Your task to perform on an android device: all mails in gmail Image 0: 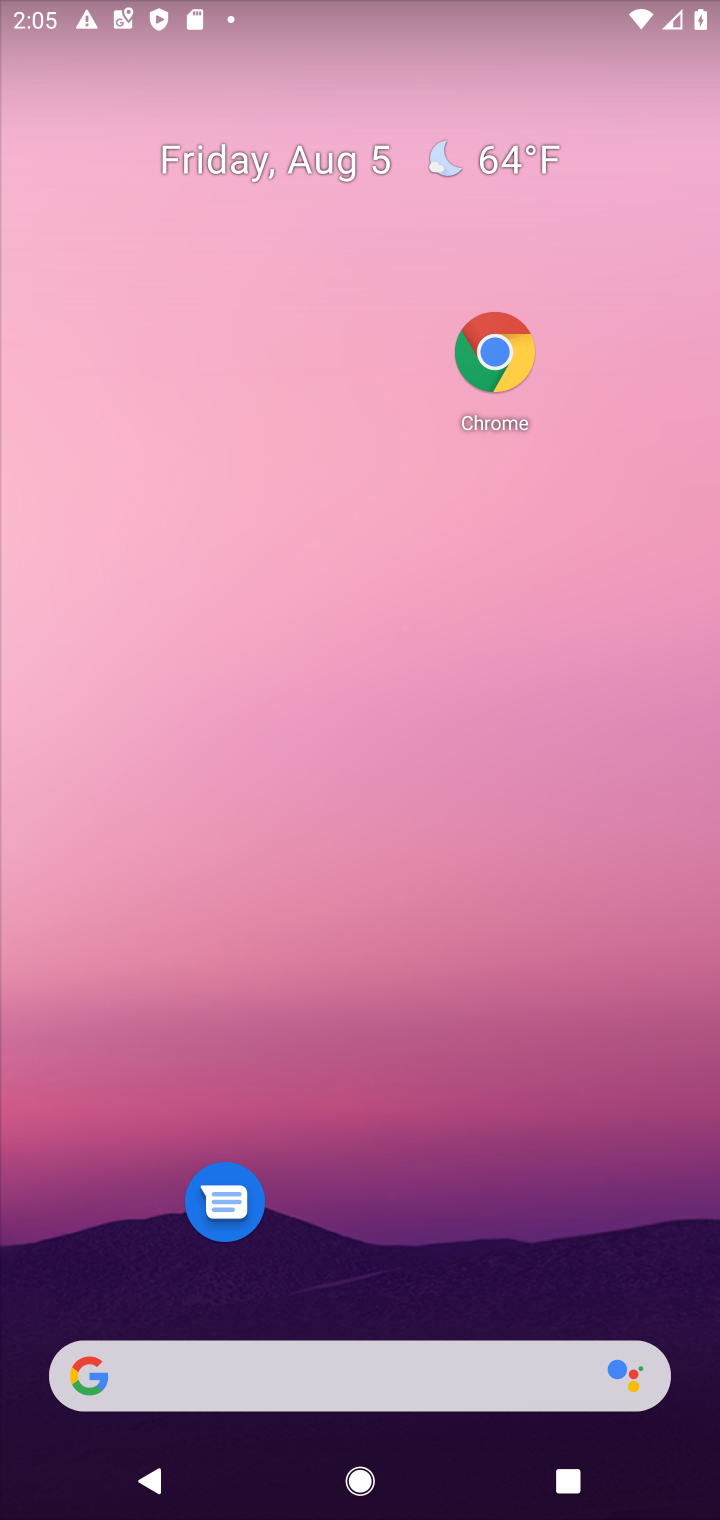
Step 0: drag from (493, 1193) to (463, 216)
Your task to perform on an android device: all mails in gmail Image 1: 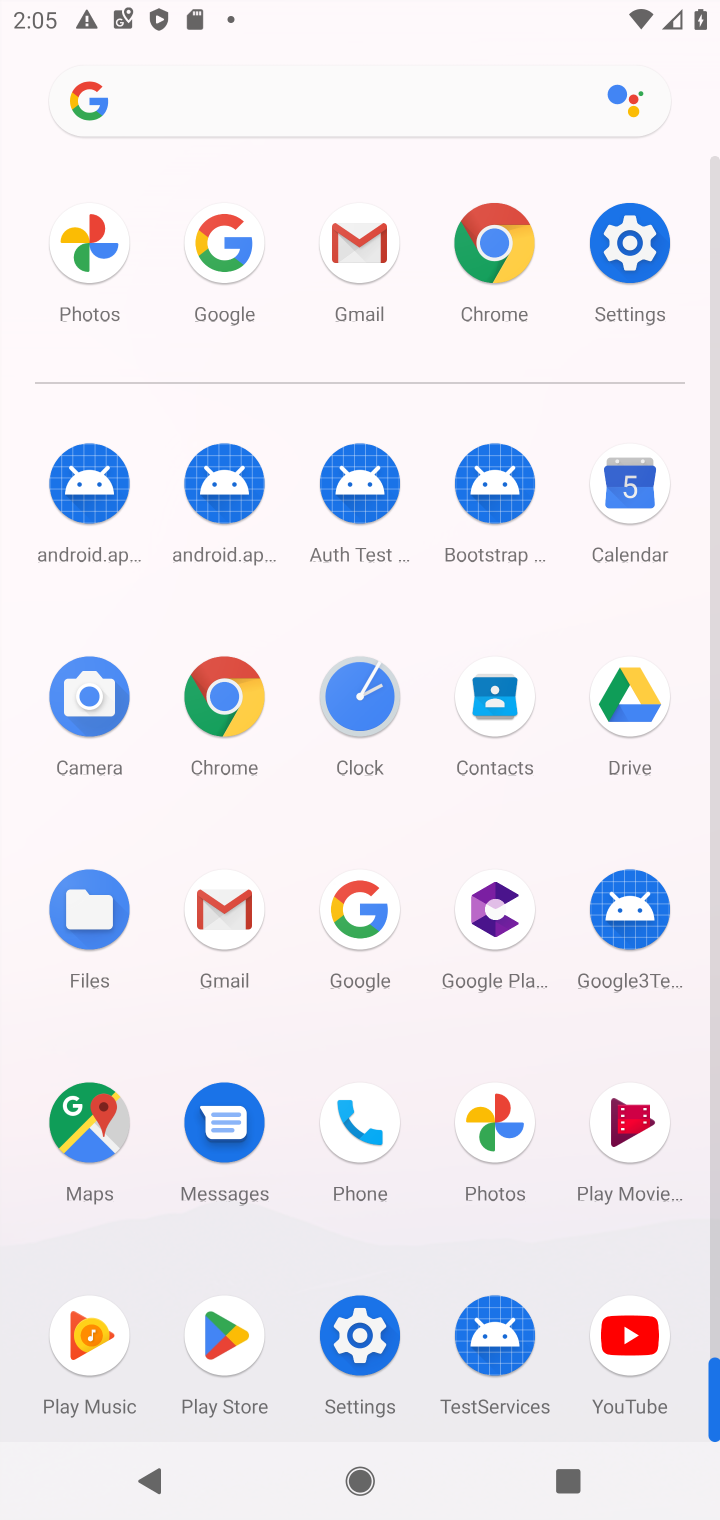
Step 1: click (236, 911)
Your task to perform on an android device: all mails in gmail Image 2: 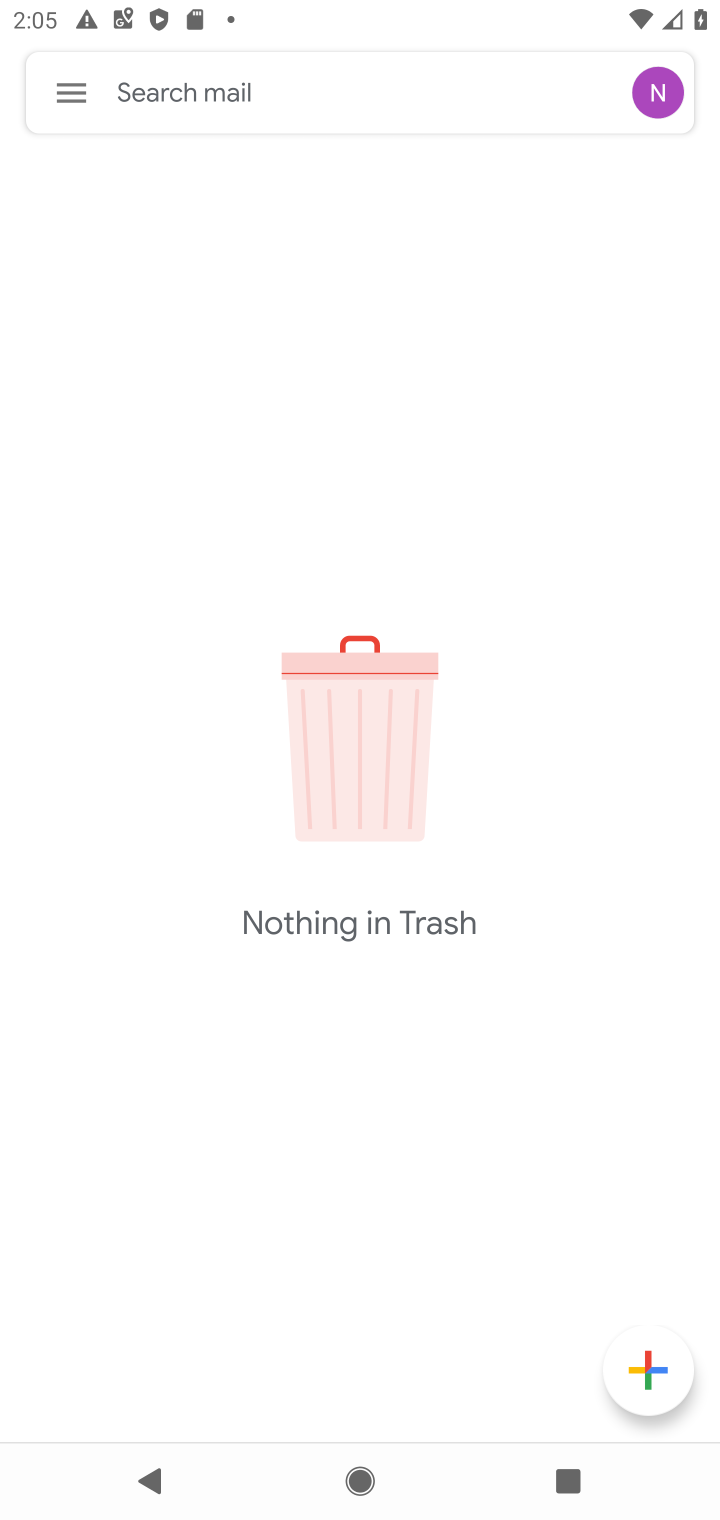
Step 2: click (74, 94)
Your task to perform on an android device: all mails in gmail Image 3: 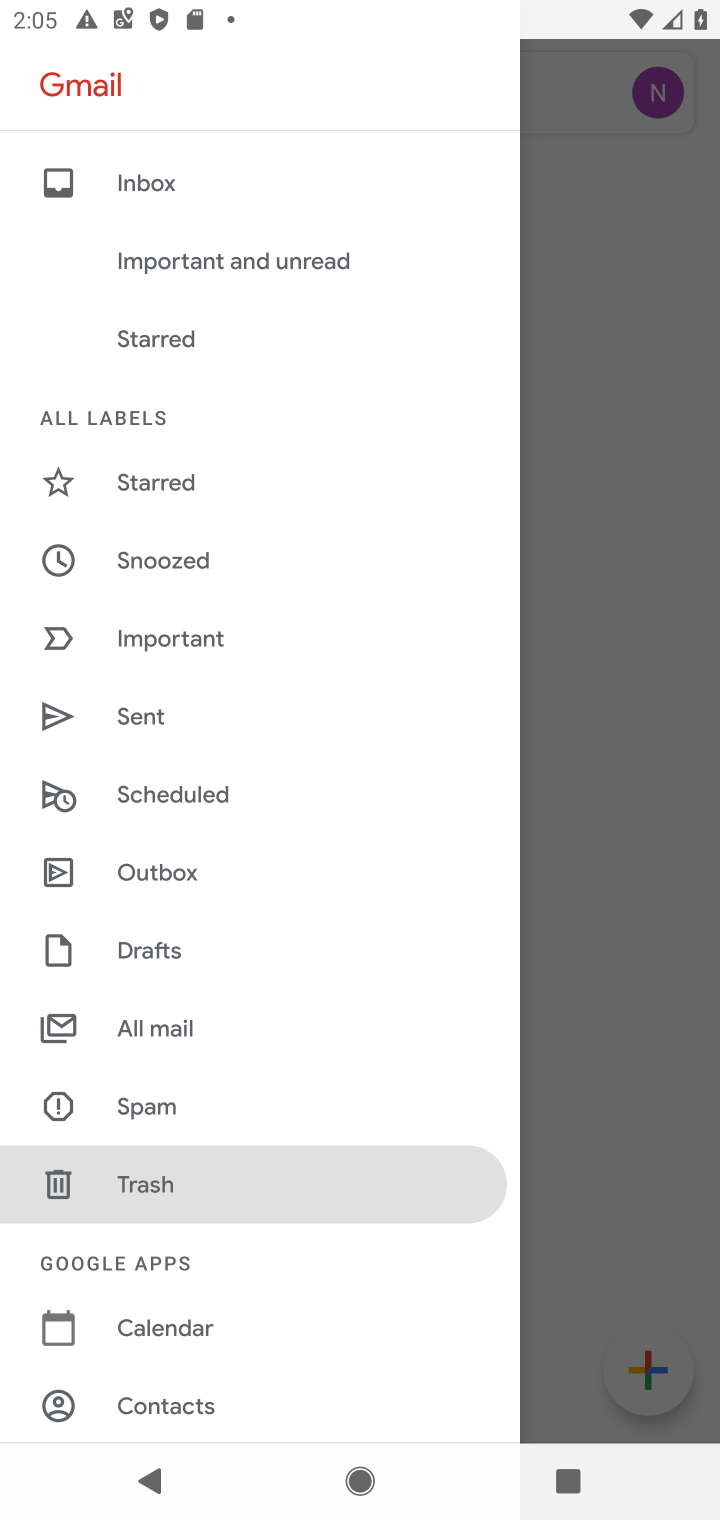
Step 3: click (186, 1045)
Your task to perform on an android device: all mails in gmail Image 4: 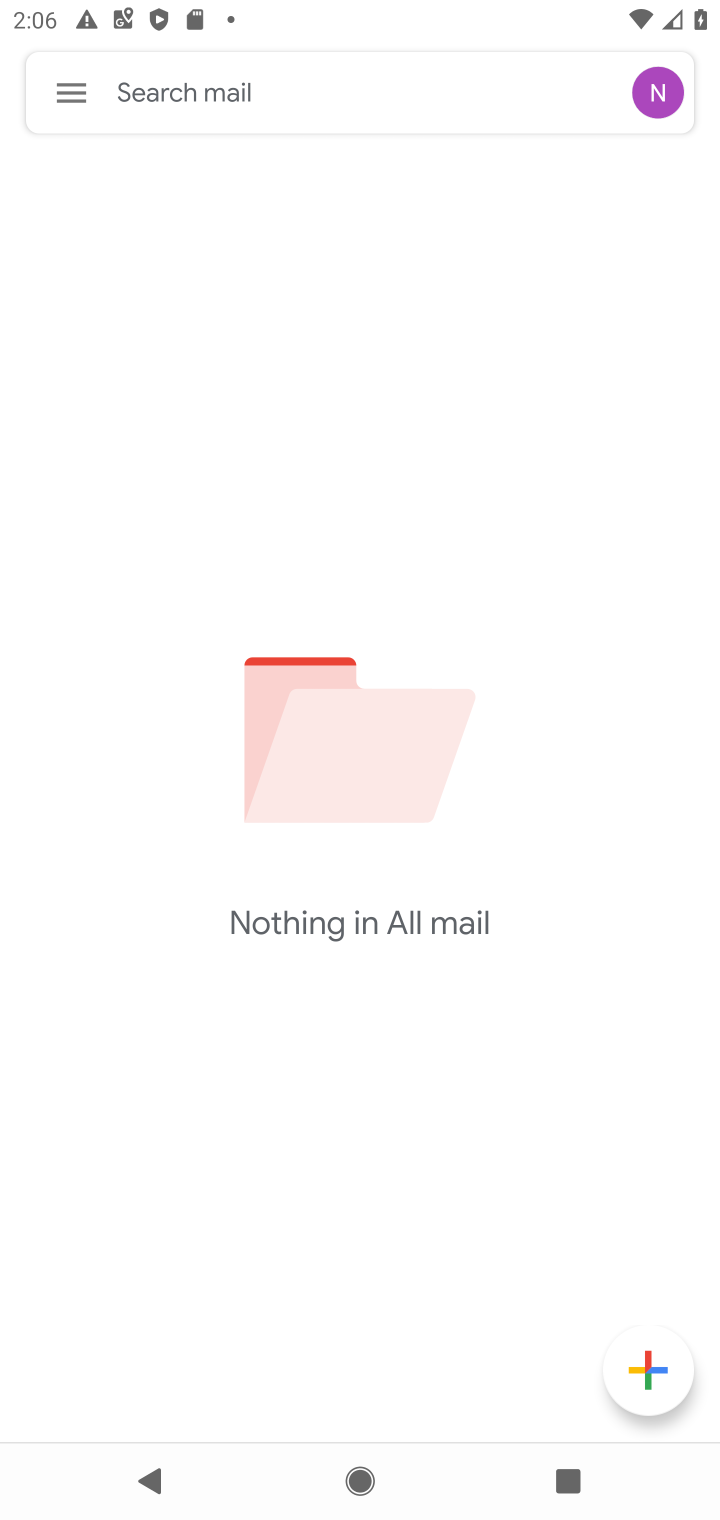
Step 4: task complete